Your task to perform on an android device: Where can I buy a nice beach bag? Image 0: 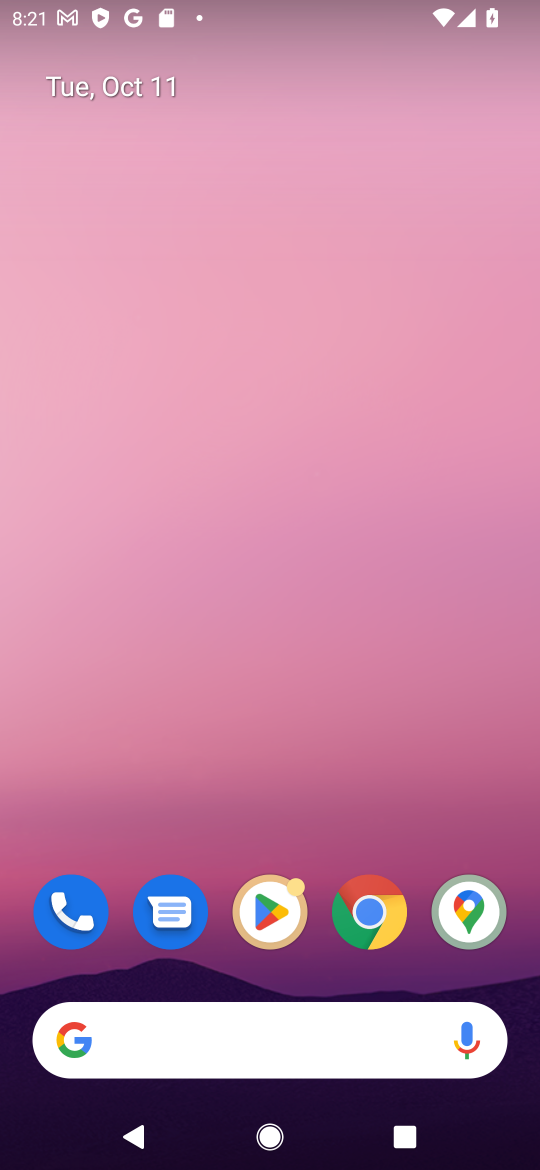
Step 0: click (366, 916)
Your task to perform on an android device: Where can I buy a nice beach bag? Image 1: 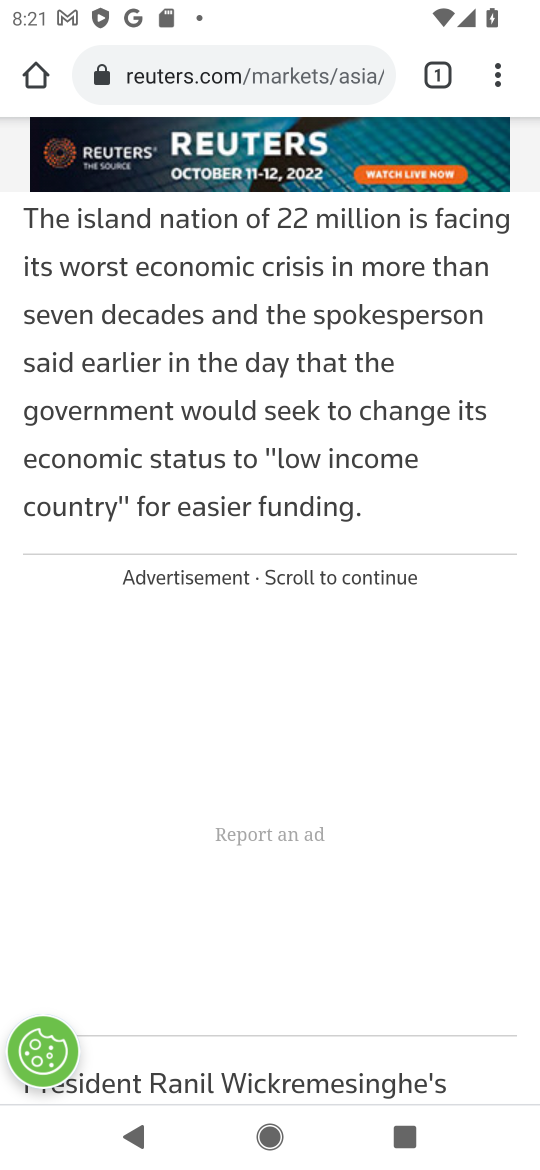
Step 1: click (240, 54)
Your task to perform on an android device: Where can I buy a nice beach bag? Image 2: 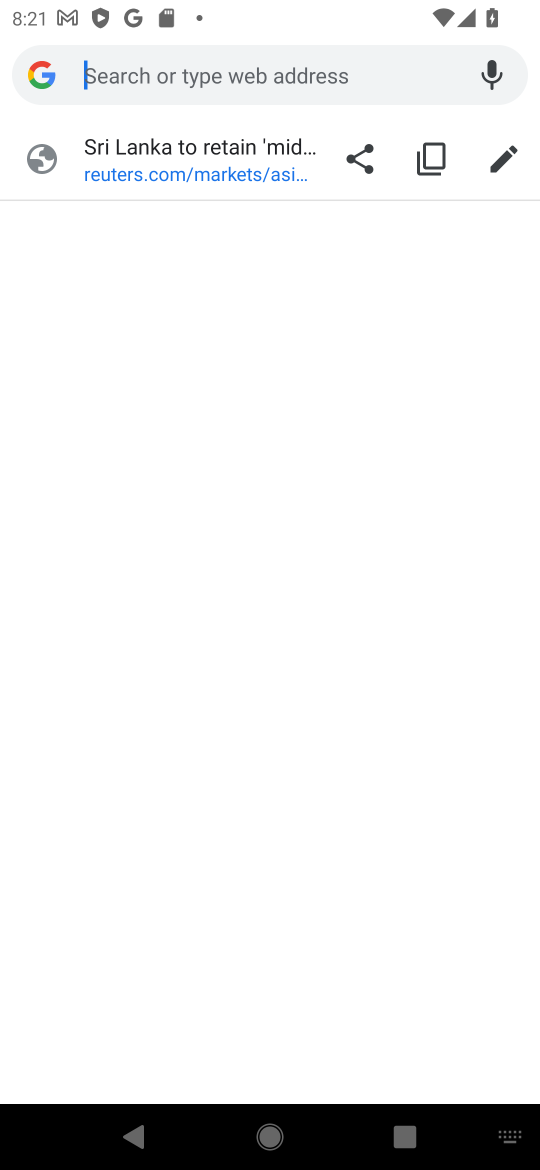
Step 2: type "nice beach bag?"
Your task to perform on an android device: Where can I buy a nice beach bag? Image 3: 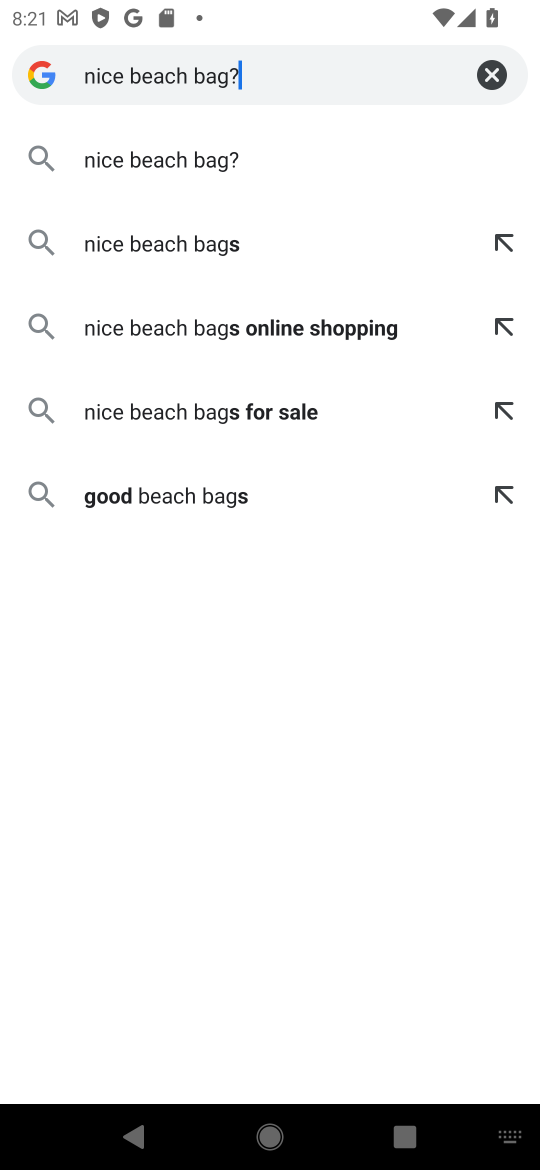
Step 3: click (226, 162)
Your task to perform on an android device: Where can I buy a nice beach bag? Image 4: 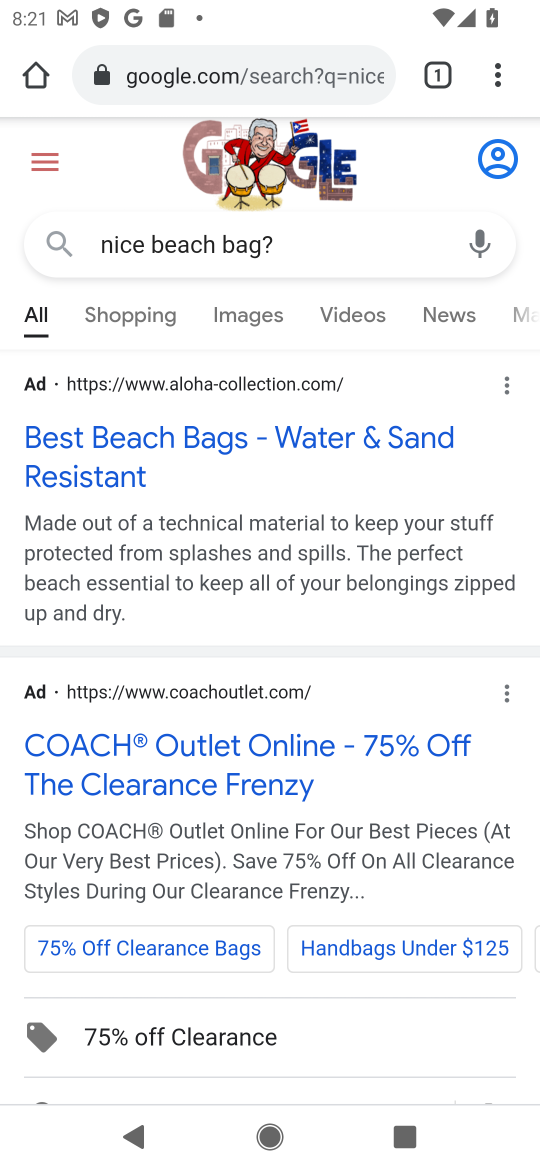
Step 4: click (100, 454)
Your task to perform on an android device: Where can I buy a nice beach bag? Image 5: 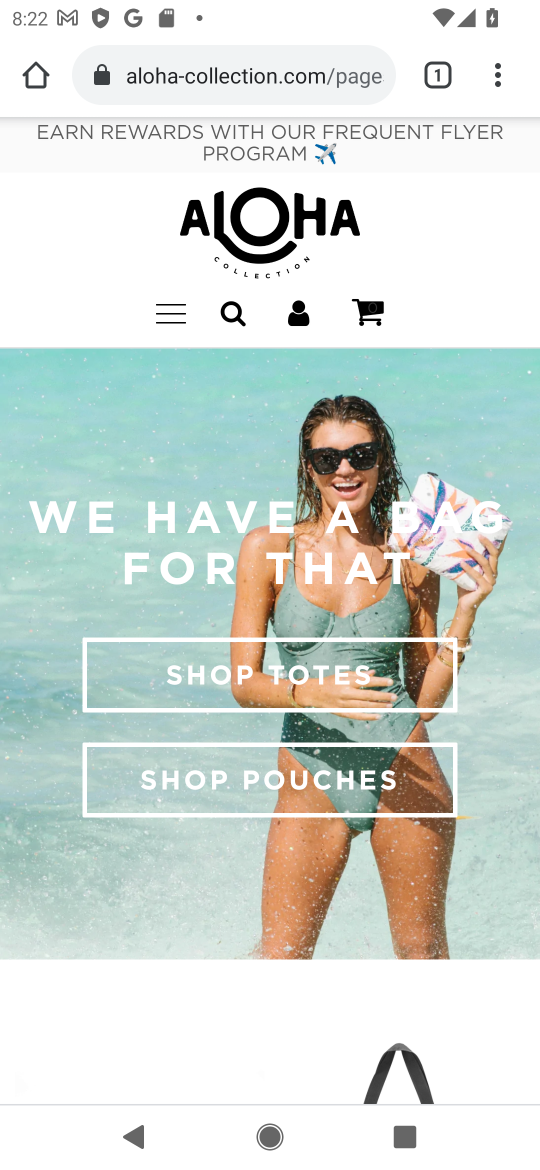
Step 5: task complete